Your task to perform on an android device: delete the emails in spam in the gmail app Image 0: 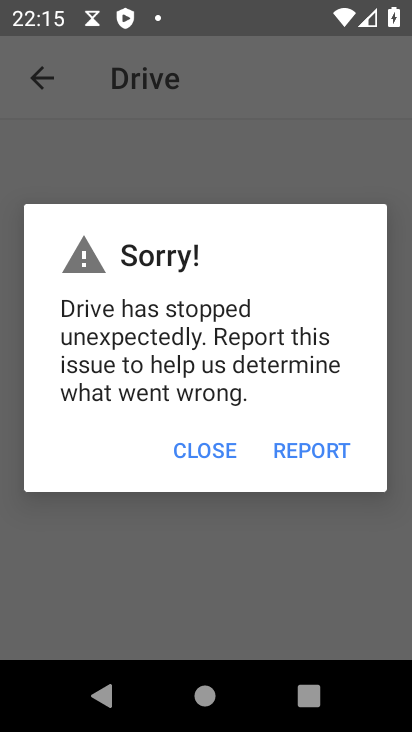
Step 0: press home button
Your task to perform on an android device: delete the emails in spam in the gmail app Image 1: 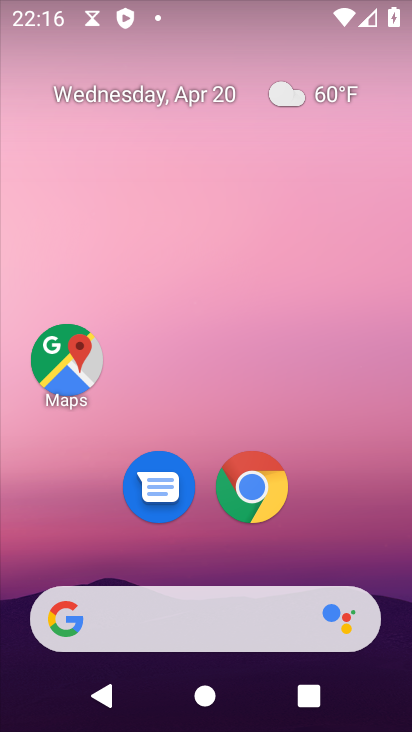
Step 1: drag from (97, 541) to (323, 269)
Your task to perform on an android device: delete the emails in spam in the gmail app Image 2: 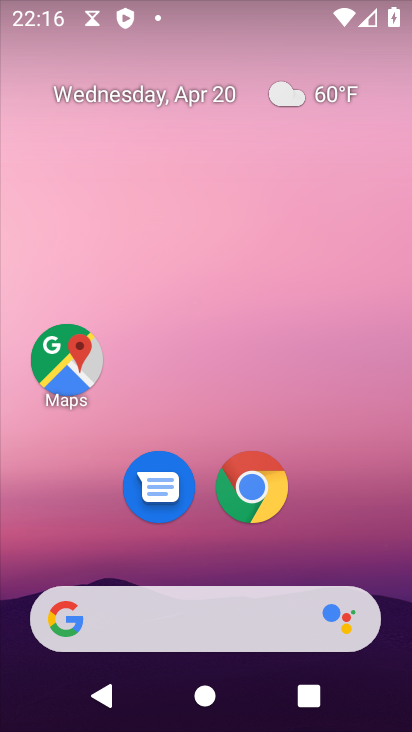
Step 2: drag from (30, 655) to (249, 281)
Your task to perform on an android device: delete the emails in spam in the gmail app Image 3: 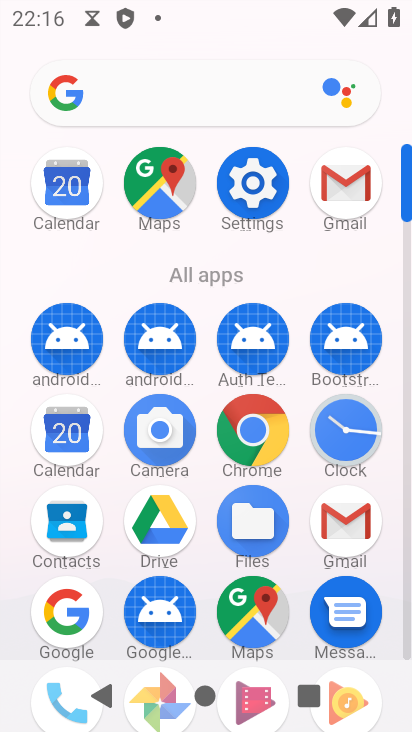
Step 3: click (372, 541)
Your task to perform on an android device: delete the emails in spam in the gmail app Image 4: 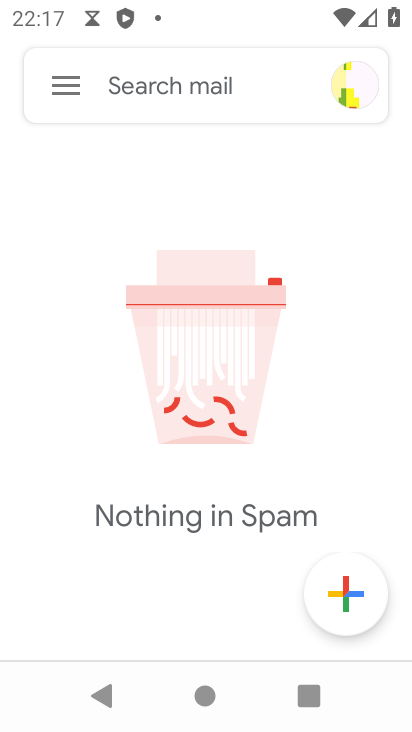
Step 4: task complete